Your task to perform on an android device: Open sound settings Image 0: 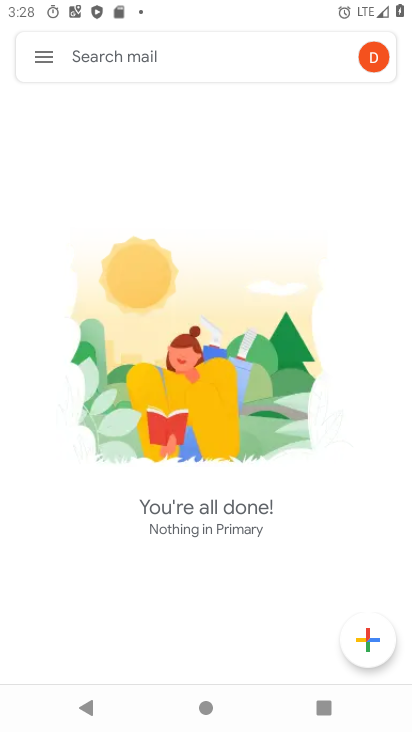
Step 0: press home button
Your task to perform on an android device: Open sound settings Image 1: 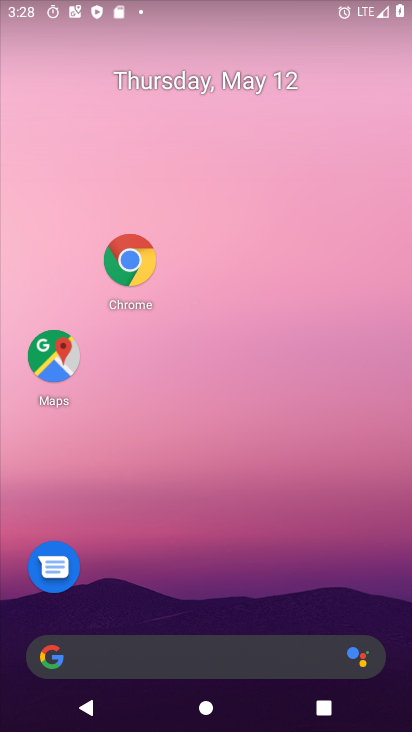
Step 1: drag from (187, 353) to (198, 273)
Your task to perform on an android device: Open sound settings Image 2: 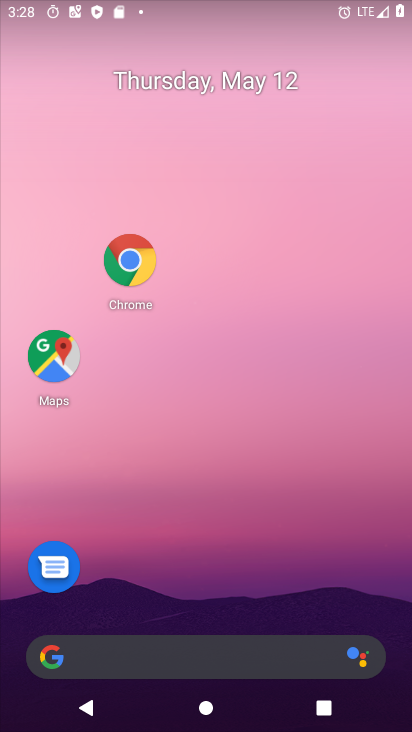
Step 2: drag from (305, 631) to (303, 275)
Your task to perform on an android device: Open sound settings Image 3: 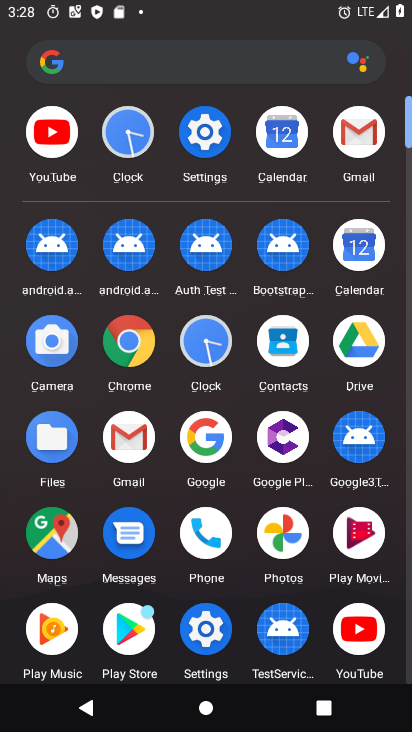
Step 3: click (201, 139)
Your task to perform on an android device: Open sound settings Image 4: 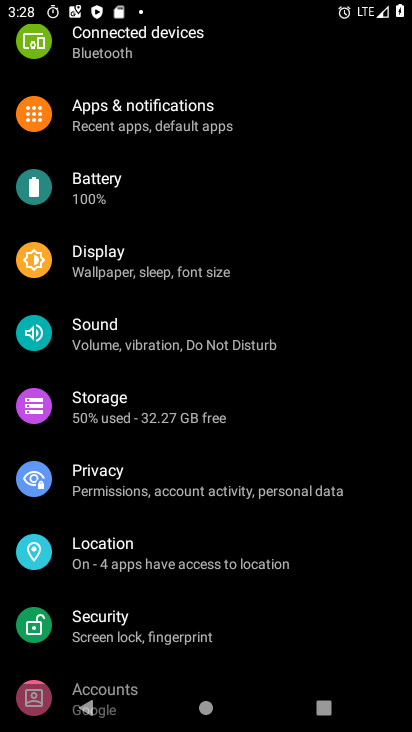
Step 4: click (142, 344)
Your task to perform on an android device: Open sound settings Image 5: 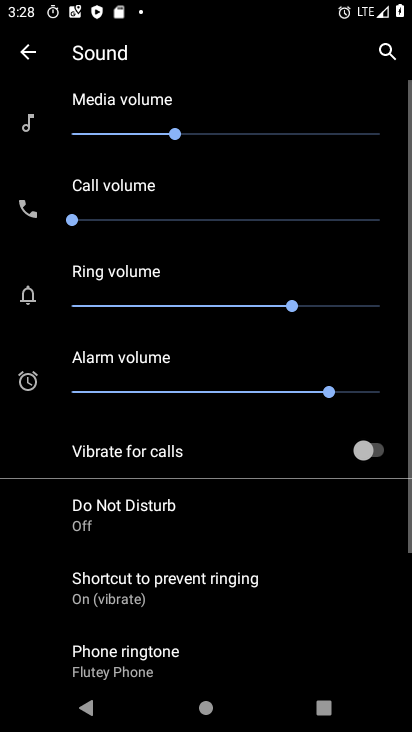
Step 5: click (104, 344)
Your task to perform on an android device: Open sound settings Image 6: 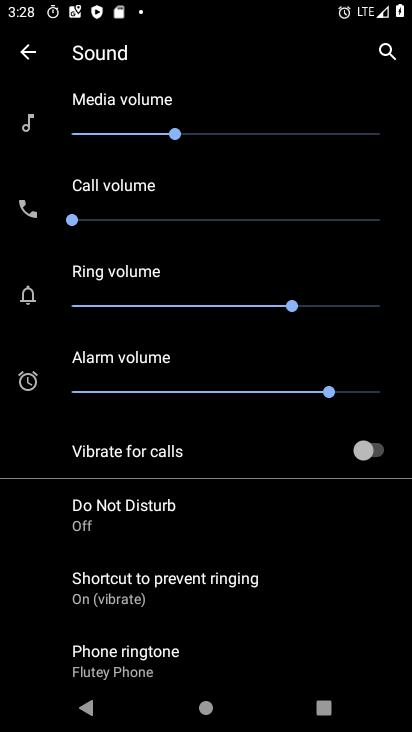
Step 6: task complete